Your task to perform on an android device: Open my contact list Image 0: 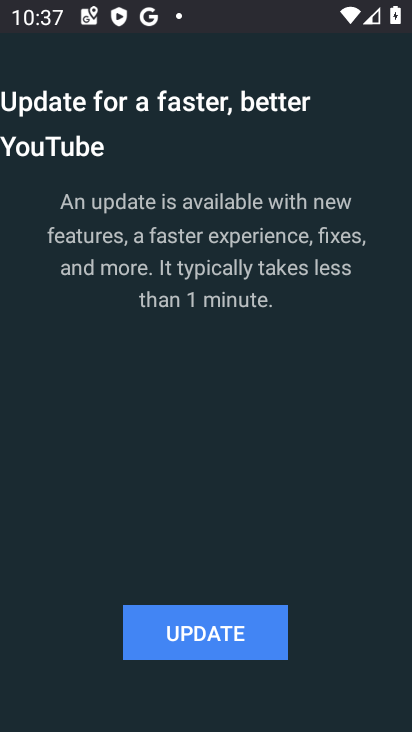
Step 0: press home button
Your task to perform on an android device: Open my contact list Image 1: 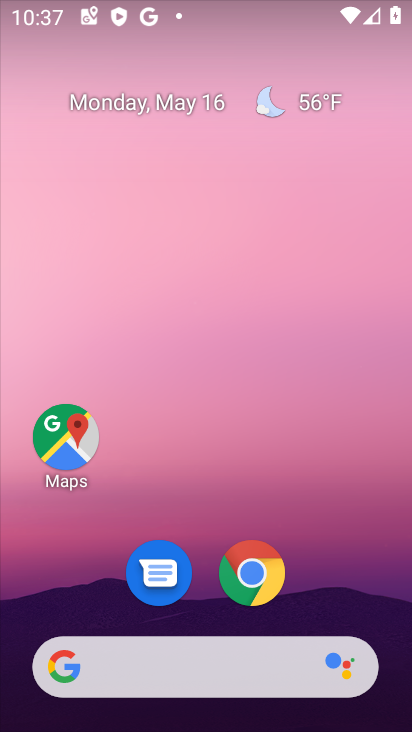
Step 1: drag from (373, 548) to (309, 223)
Your task to perform on an android device: Open my contact list Image 2: 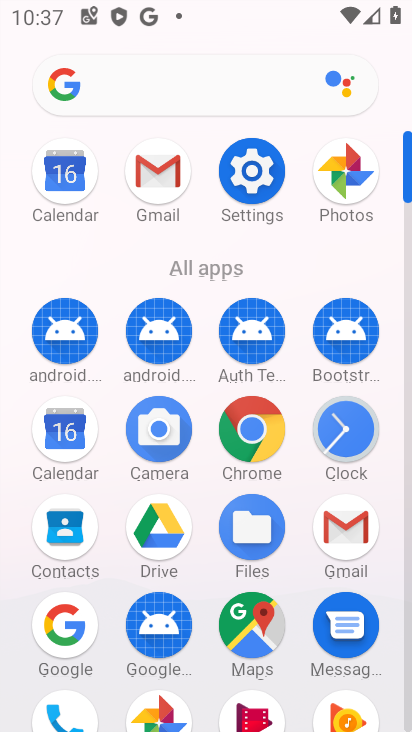
Step 2: click (63, 525)
Your task to perform on an android device: Open my contact list Image 3: 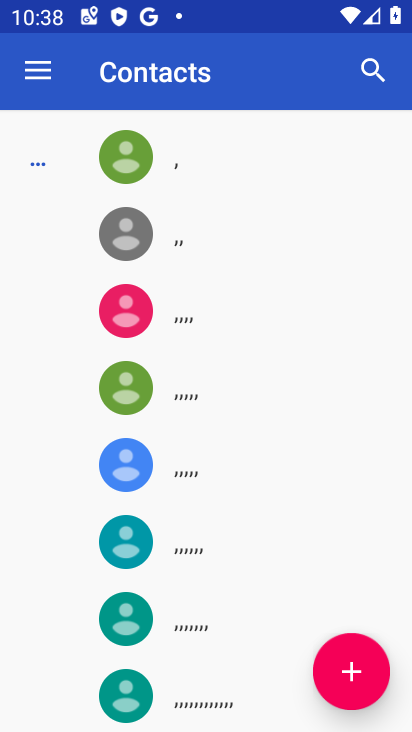
Step 3: task complete